Your task to perform on an android device: Show me the alarms in the clock app Image 0: 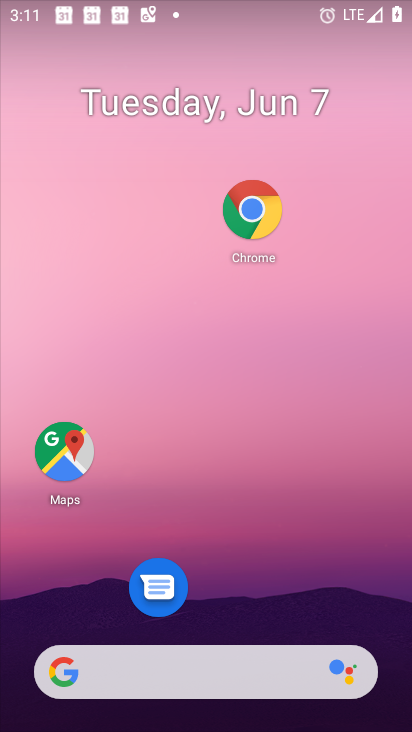
Step 0: drag from (319, 580) to (310, 199)
Your task to perform on an android device: Show me the alarms in the clock app Image 1: 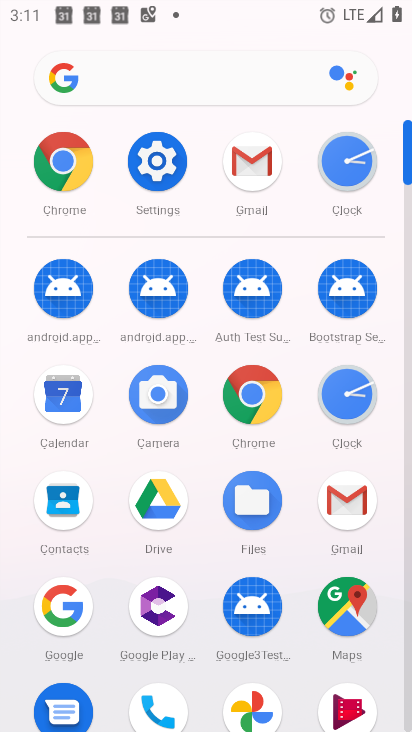
Step 1: click (356, 411)
Your task to perform on an android device: Show me the alarms in the clock app Image 2: 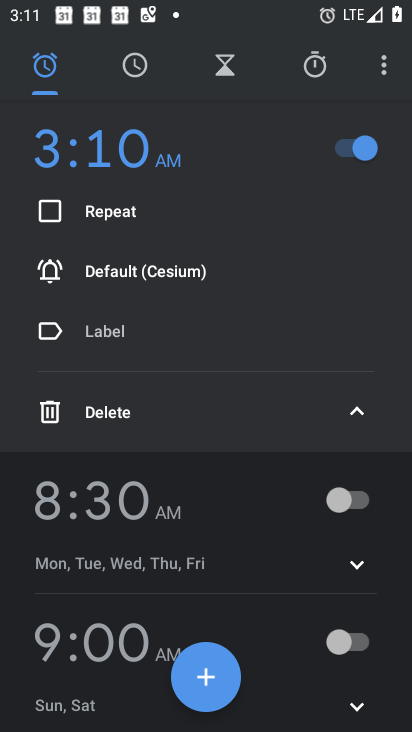
Step 2: task complete